Your task to perform on an android device: Open network settings Image 0: 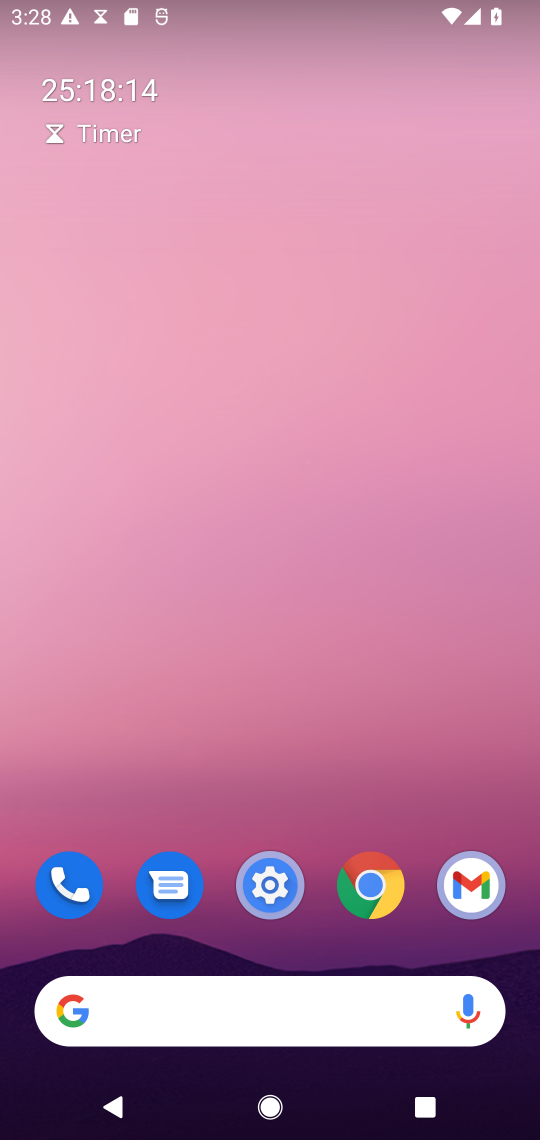
Step 0: drag from (348, 821) to (426, 129)
Your task to perform on an android device: Open network settings Image 1: 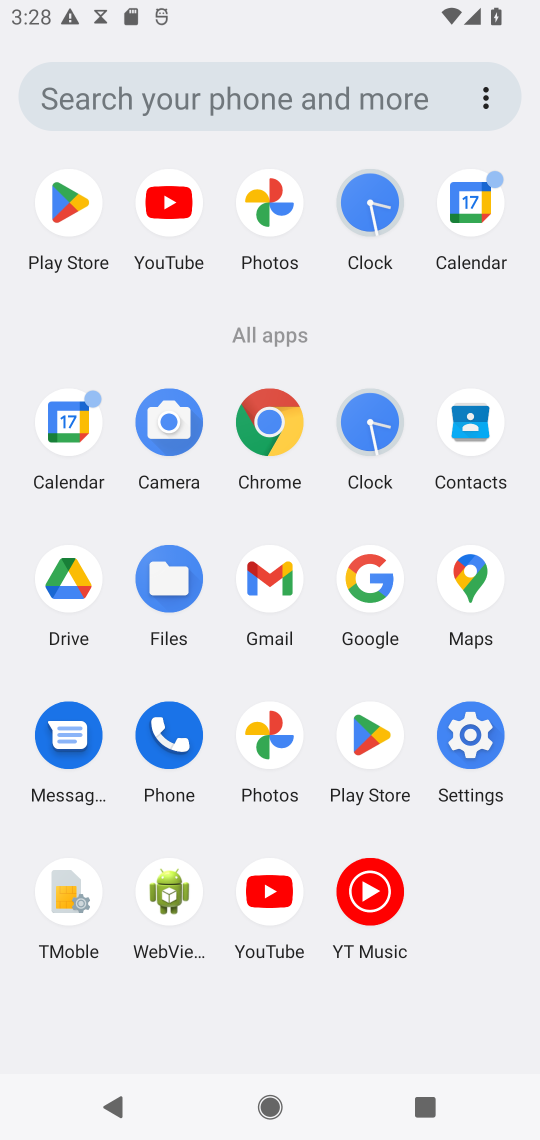
Step 1: click (471, 732)
Your task to perform on an android device: Open network settings Image 2: 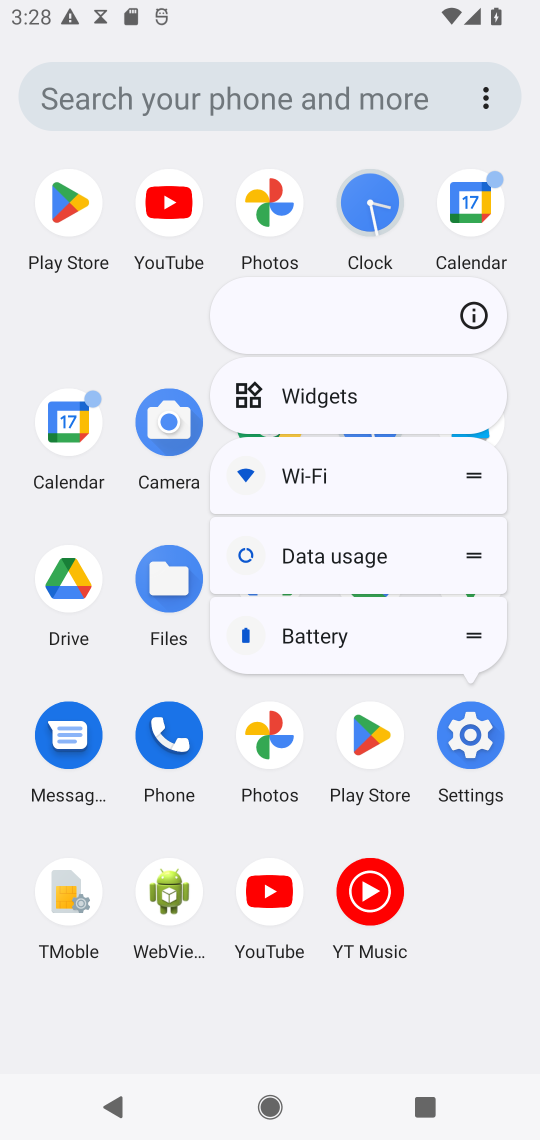
Step 2: click (475, 701)
Your task to perform on an android device: Open network settings Image 3: 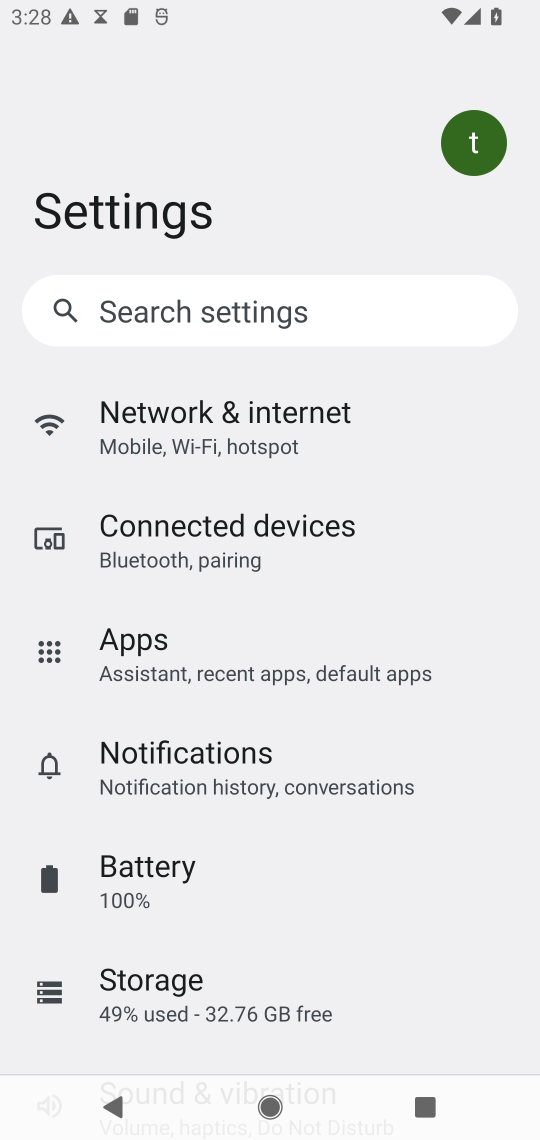
Step 3: click (289, 420)
Your task to perform on an android device: Open network settings Image 4: 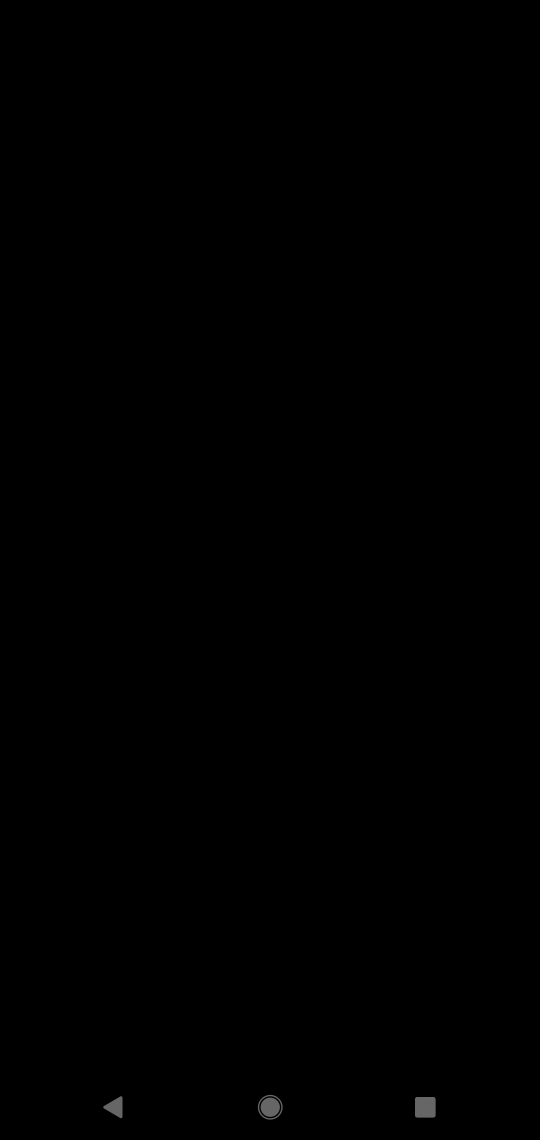
Step 4: task complete